Your task to perform on an android device: change text size in settings app Image 0: 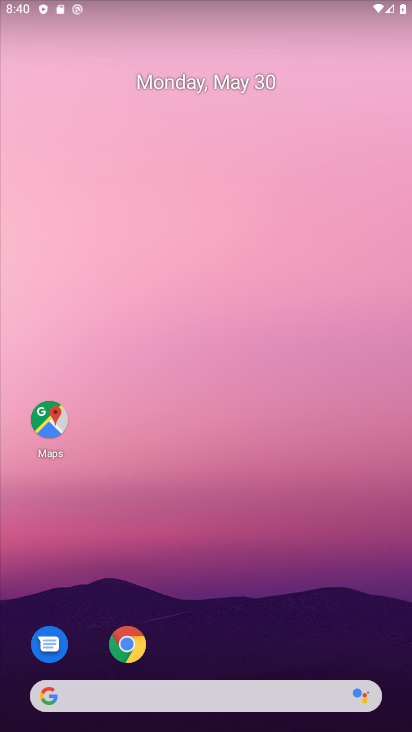
Step 0: drag from (229, 661) to (243, 194)
Your task to perform on an android device: change text size in settings app Image 1: 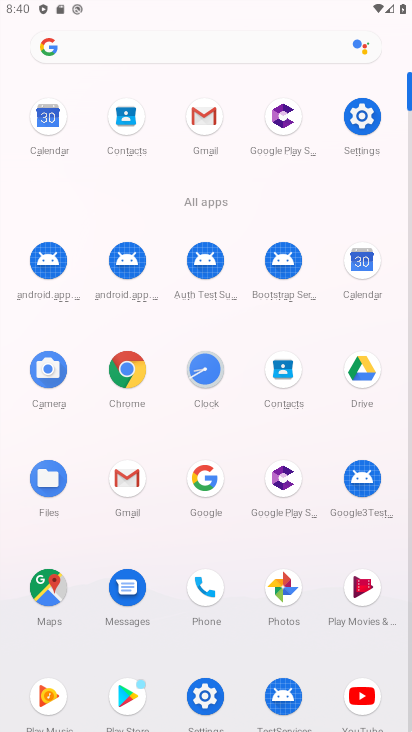
Step 1: click (374, 112)
Your task to perform on an android device: change text size in settings app Image 2: 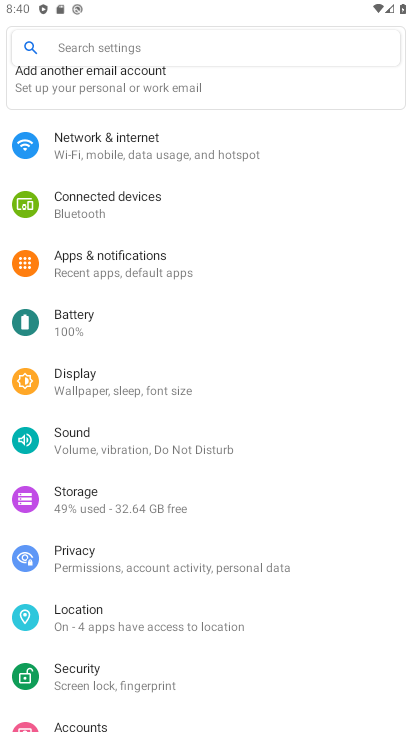
Step 2: click (107, 42)
Your task to perform on an android device: change text size in settings app Image 3: 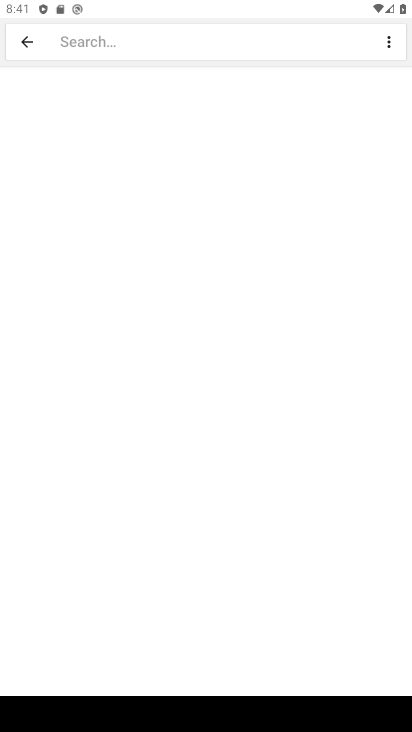
Step 3: type "text size"
Your task to perform on an android device: change text size in settings app Image 4: 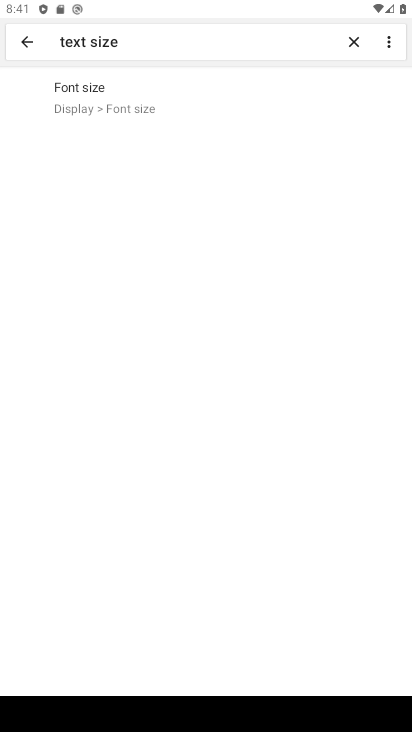
Step 4: click (107, 100)
Your task to perform on an android device: change text size in settings app Image 5: 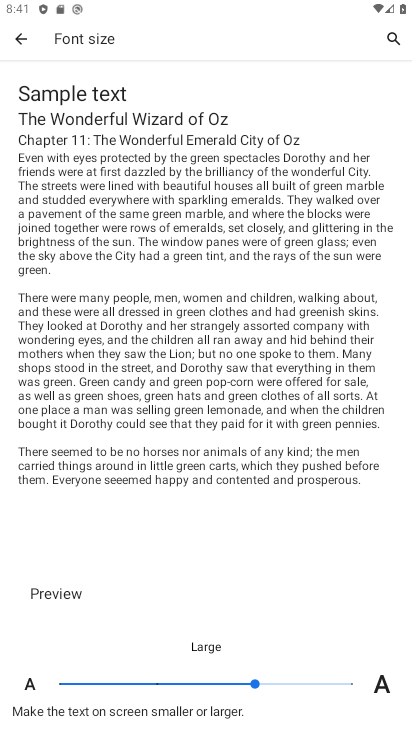
Step 5: task complete